Your task to perform on an android device: change the clock display to analog Image 0: 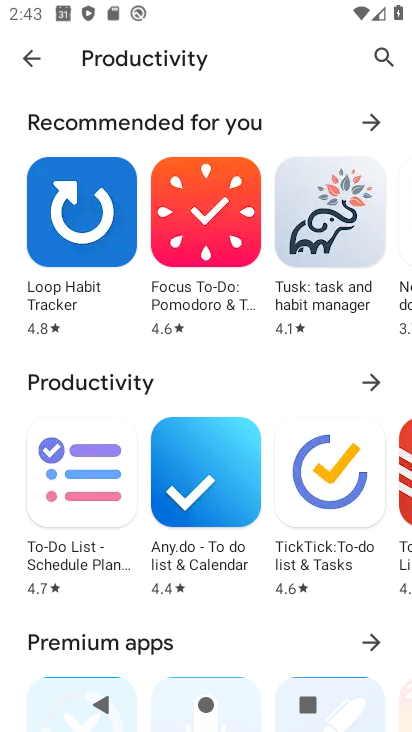
Step 0: press home button
Your task to perform on an android device: change the clock display to analog Image 1: 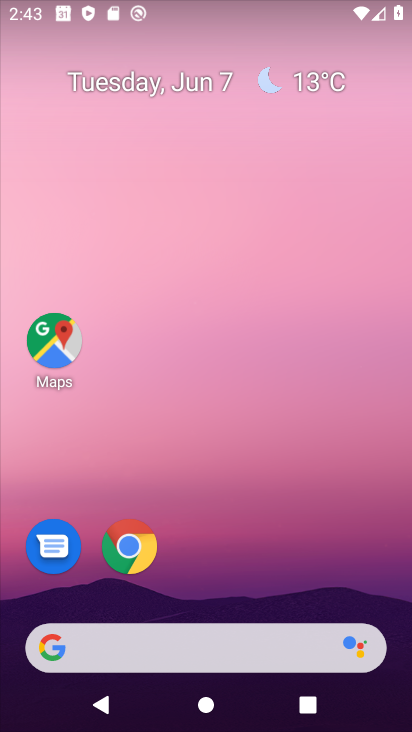
Step 1: drag from (186, 597) to (265, 0)
Your task to perform on an android device: change the clock display to analog Image 2: 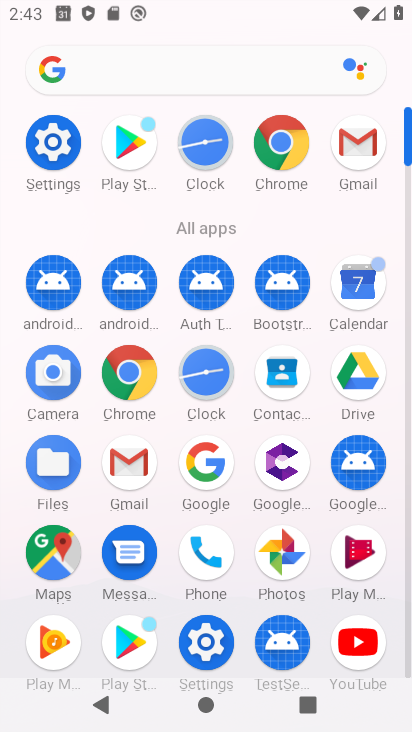
Step 2: click (209, 380)
Your task to perform on an android device: change the clock display to analog Image 3: 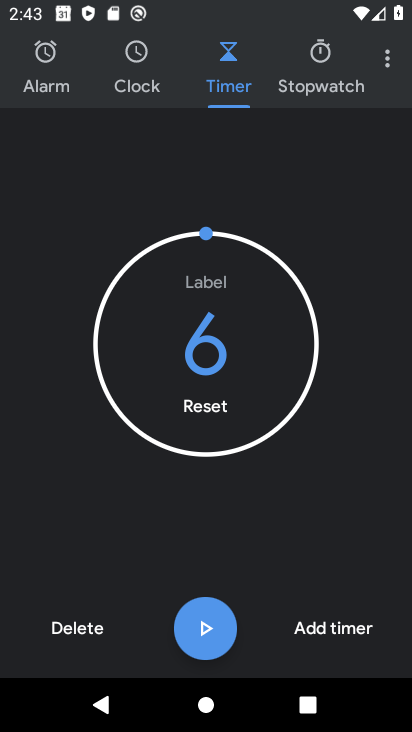
Step 3: click (392, 61)
Your task to perform on an android device: change the clock display to analog Image 4: 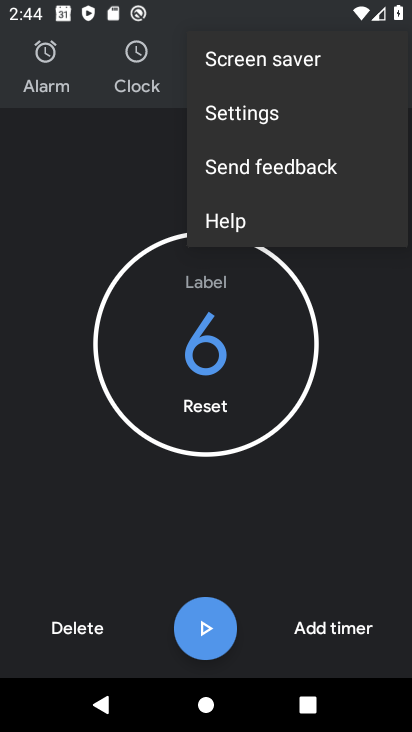
Step 4: click (318, 122)
Your task to perform on an android device: change the clock display to analog Image 5: 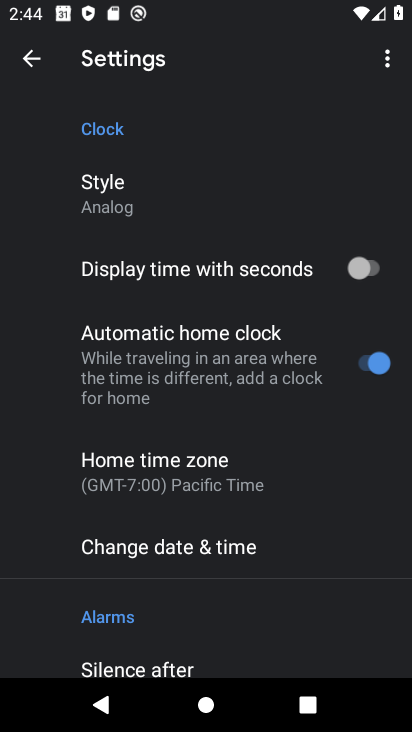
Step 5: click (132, 229)
Your task to perform on an android device: change the clock display to analog Image 6: 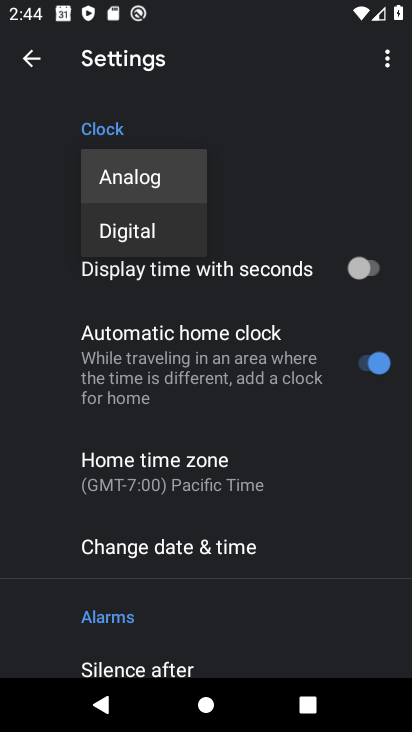
Step 6: task complete